Your task to perform on an android device: Go to settings Image 0: 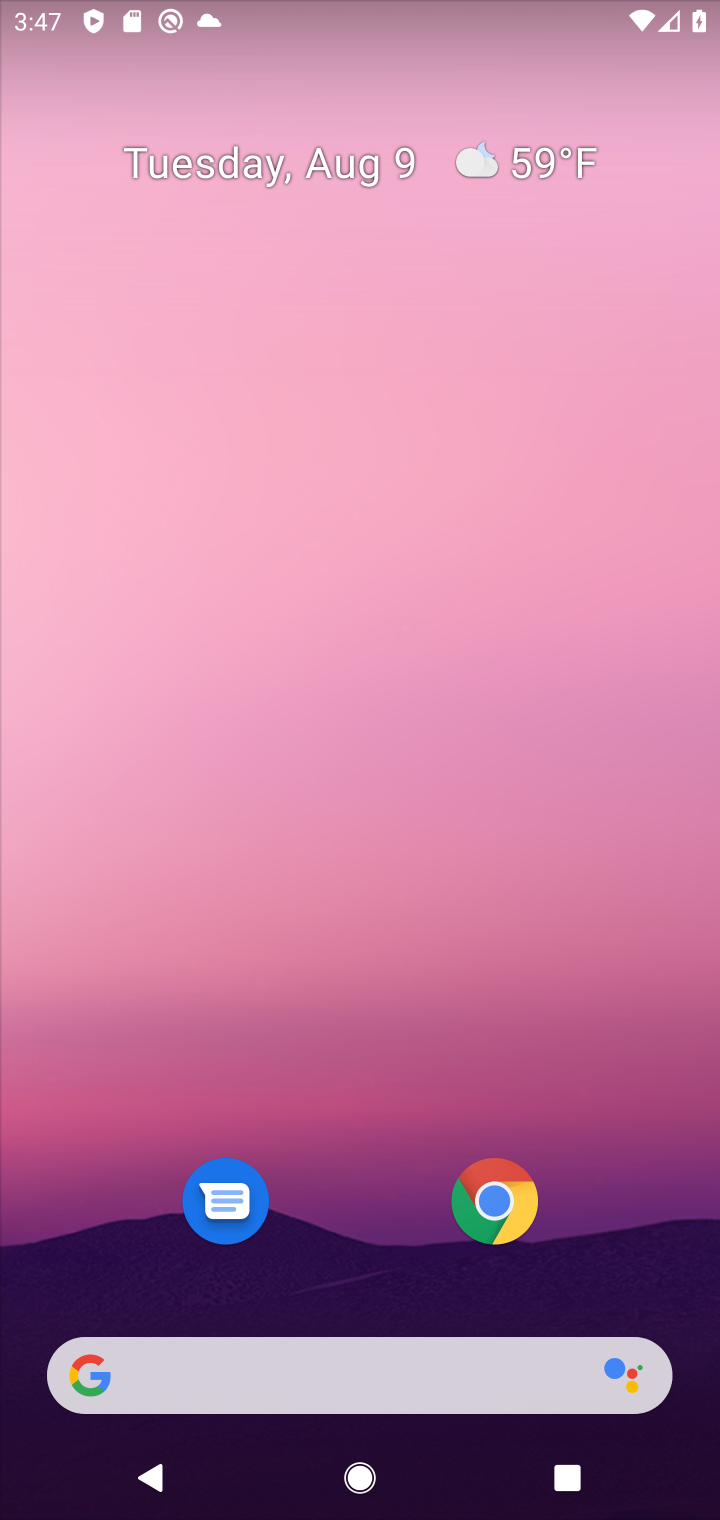
Step 0: drag from (344, 1256) to (366, 365)
Your task to perform on an android device: Go to settings Image 1: 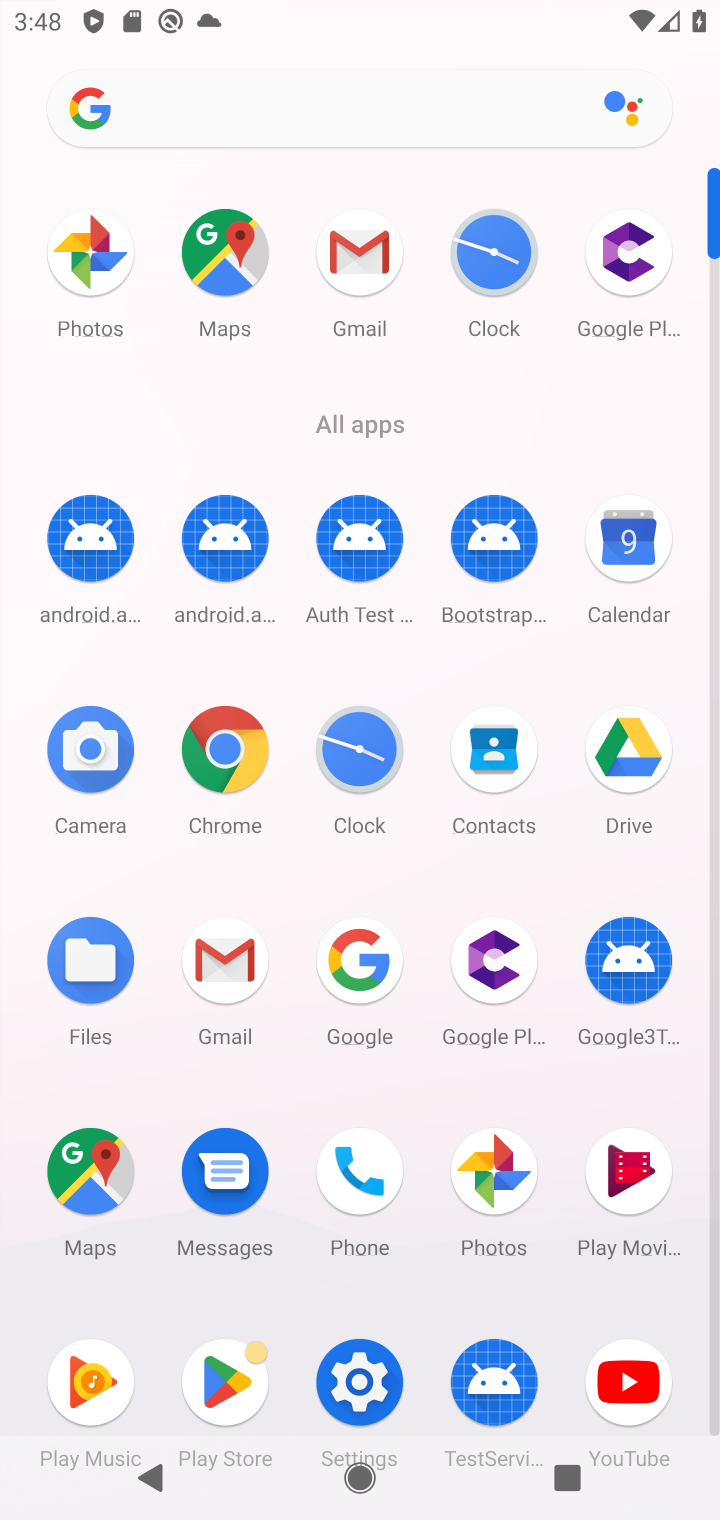
Step 1: click (389, 1407)
Your task to perform on an android device: Go to settings Image 2: 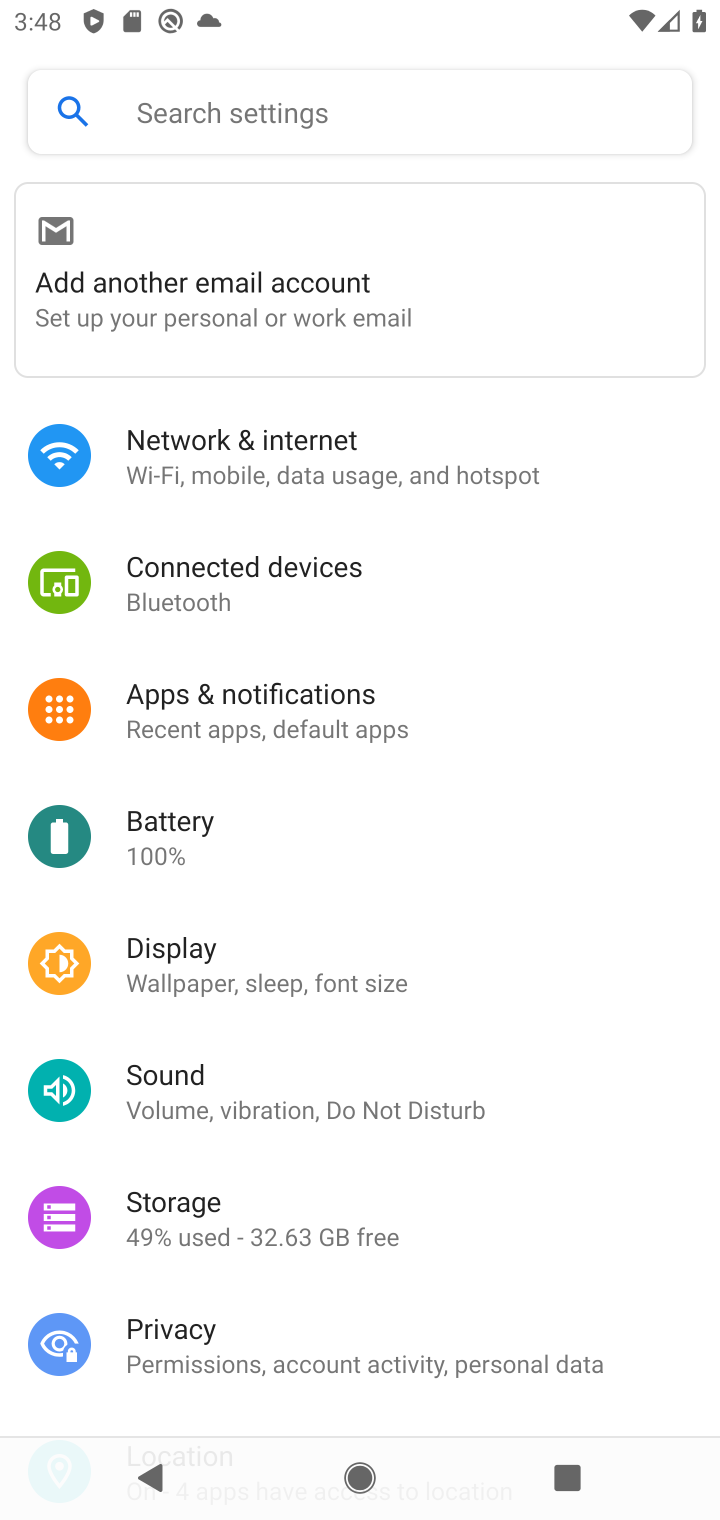
Step 2: task complete